Your task to perform on an android device: turn off picture-in-picture Image 0: 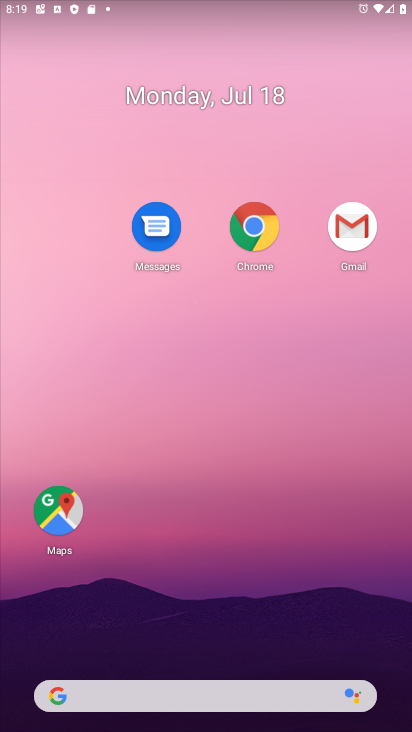
Step 0: press home button
Your task to perform on an android device: turn off picture-in-picture Image 1: 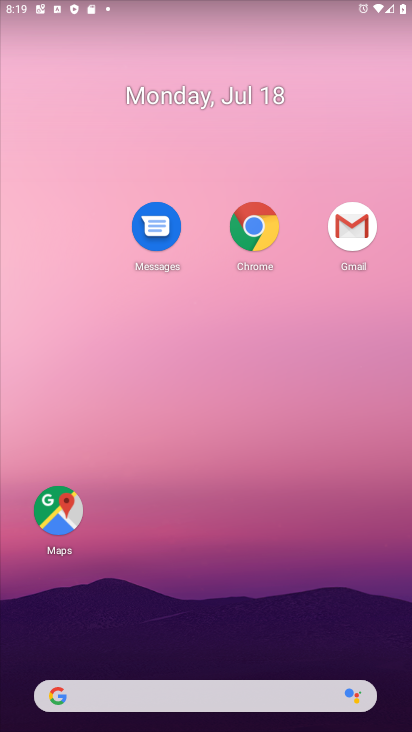
Step 1: click (253, 225)
Your task to perform on an android device: turn off picture-in-picture Image 2: 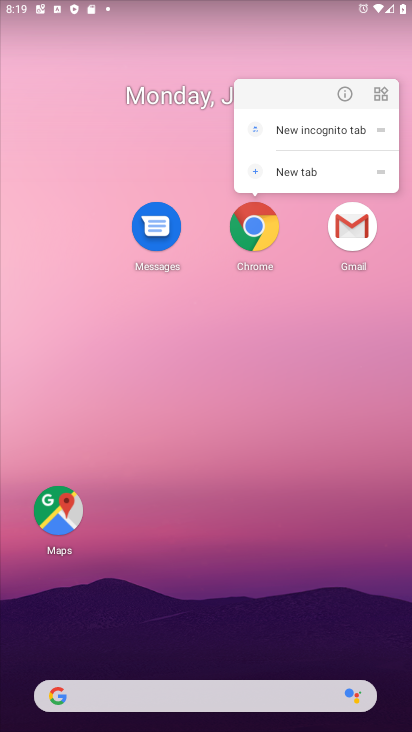
Step 2: click (338, 94)
Your task to perform on an android device: turn off picture-in-picture Image 3: 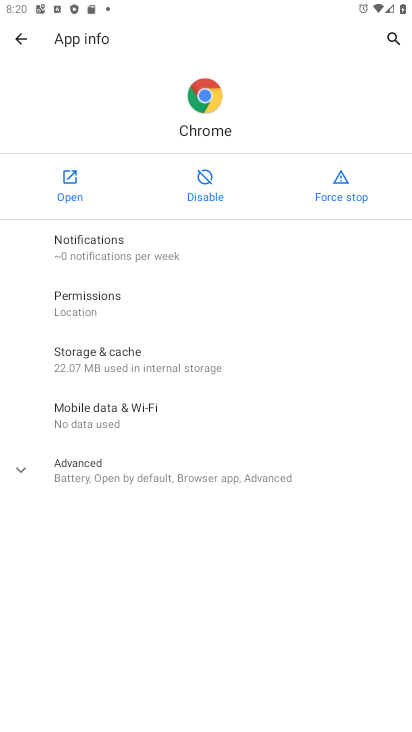
Step 3: click (20, 473)
Your task to perform on an android device: turn off picture-in-picture Image 4: 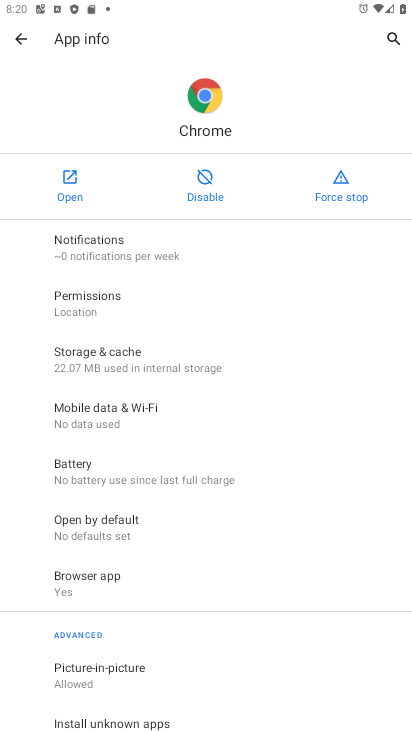
Step 4: click (107, 678)
Your task to perform on an android device: turn off picture-in-picture Image 5: 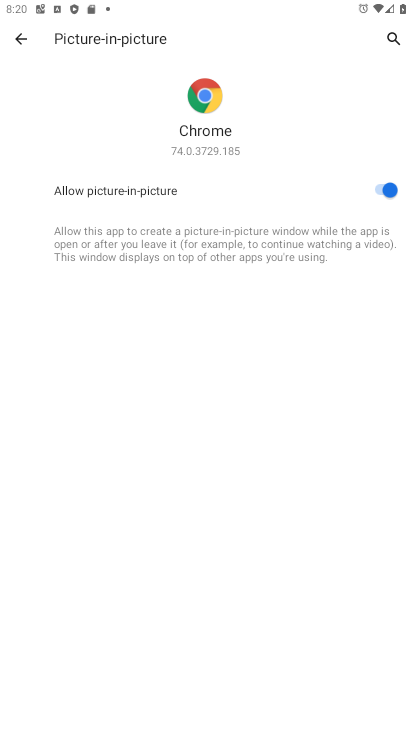
Step 5: click (390, 184)
Your task to perform on an android device: turn off picture-in-picture Image 6: 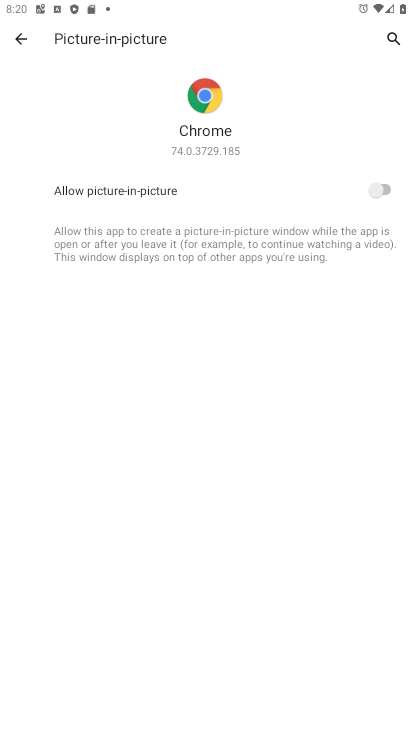
Step 6: task complete